Your task to perform on an android device: Is it going to rain tomorrow? Image 0: 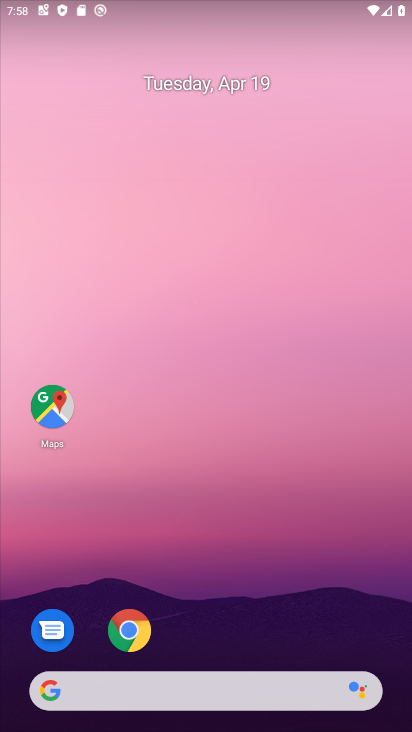
Step 0: click (143, 636)
Your task to perform on an android device: Is it going to rain tomorrow? Image 1: 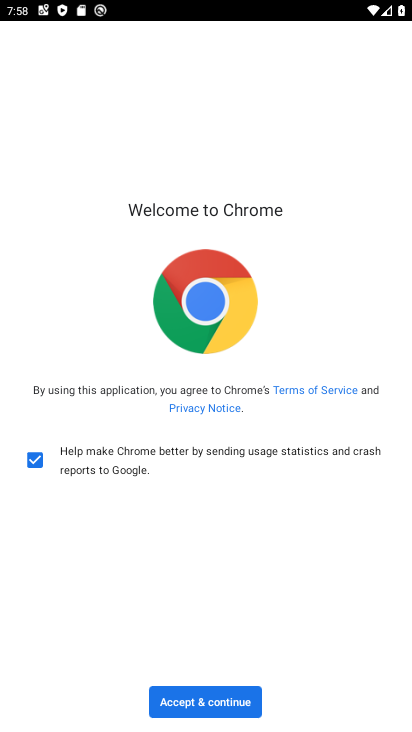
Step 1: click (211, 701)
Your task to perform on an android device: Is it going to rain tomorrow? Image 2: 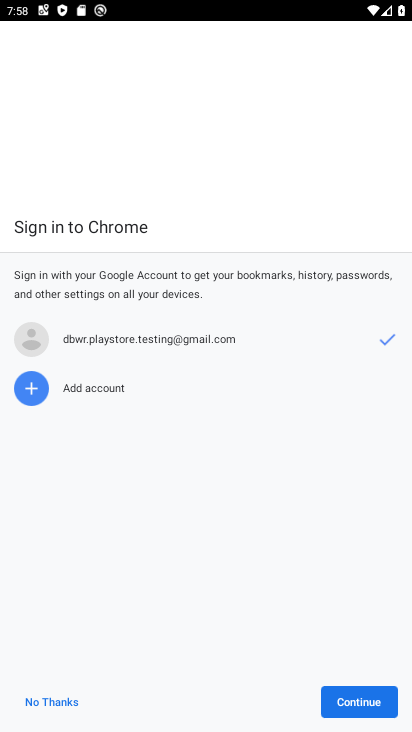
Step 2: click (377, 702)
Your task to perform on an android device: Is it going to rain tomorrow? Image 3: 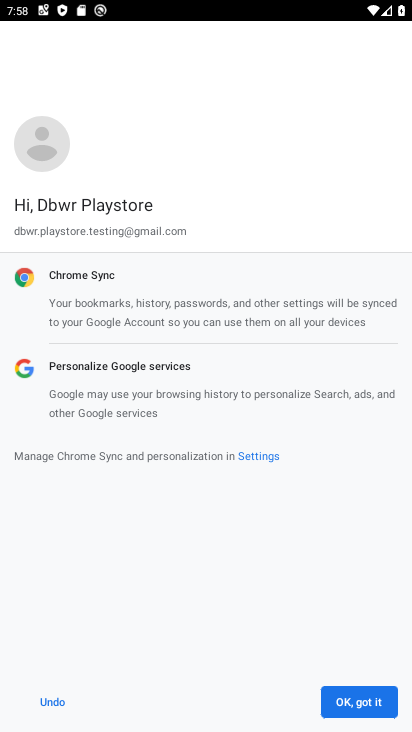
Step 3: click (371, 702)
Your task to perform on an android device: Is it going to rain tomorrow? Image 4: 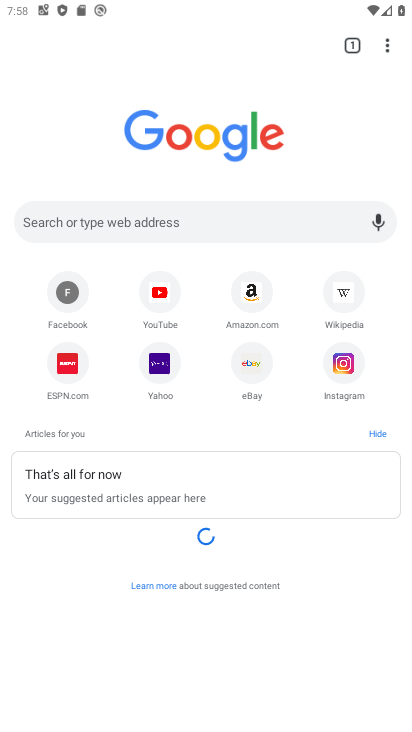
Step 4: click (108, 224)
Your task to perform on an android device: Is it going to rain tomorrow? Image 5: 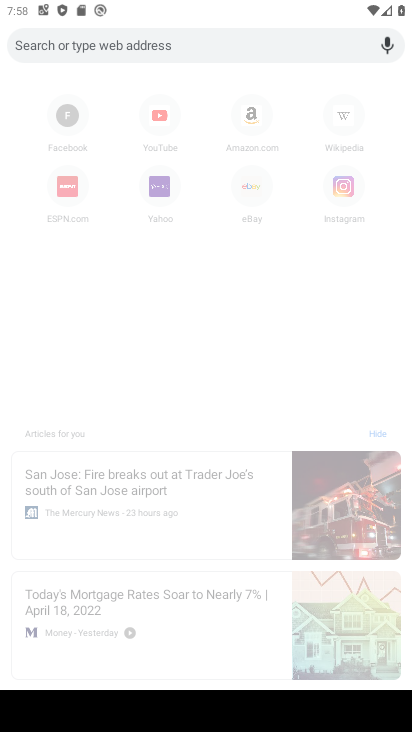
Step 5: type "Is it going to rain tomorrow?"
Your task to perform on an android device: Is it going to rain tomorrow? Image 6: 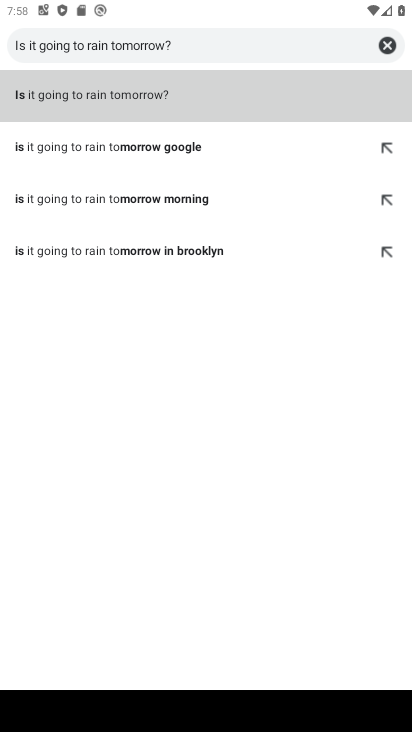
Step 6: click (159, 155)
Your task to perform on an android device: Is it going to rain tomorrow? Image 7: 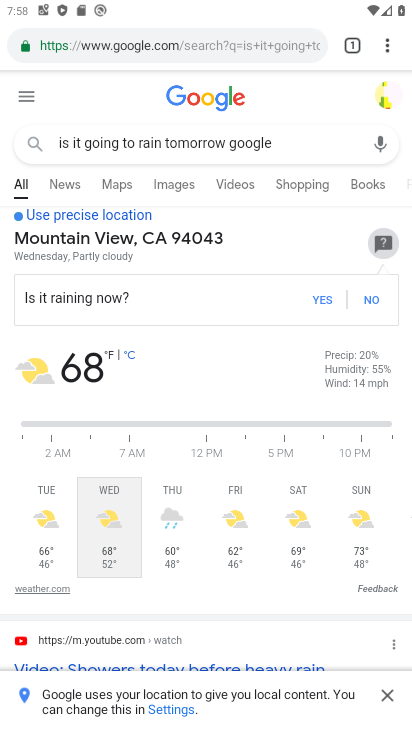
Step 7: task complete